Your task to perform on an android device: Open Chrome and go to the settings page Image 0: 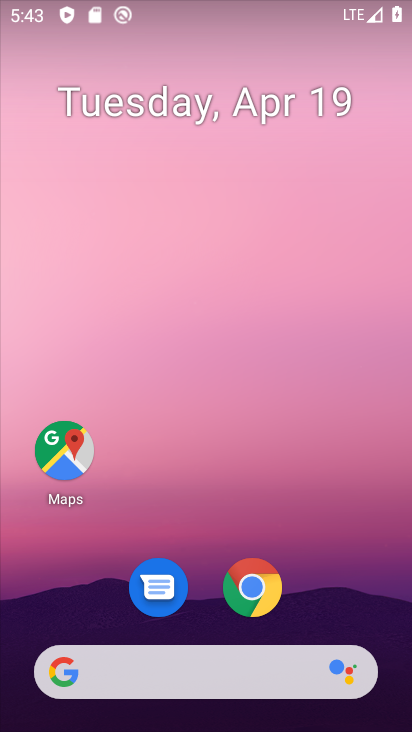
Step 0: click (245, 599)
Your task to perform on an android device: Open Chrome and go to the settings page Image 1: 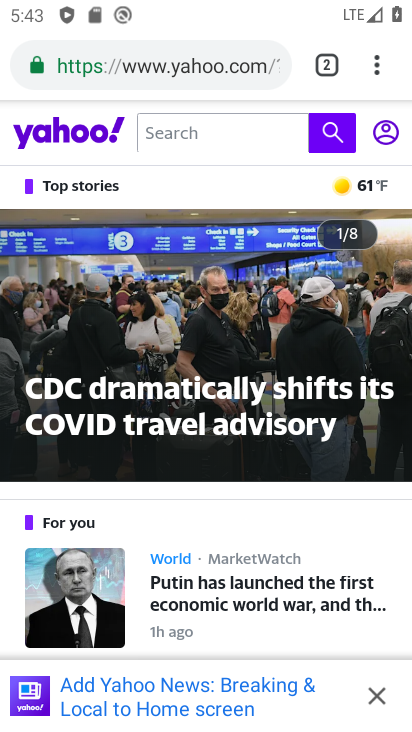
Step 1: click (378, 72)
Your task to perform on an android device: Open Chrome and go to the settings page Image 2: 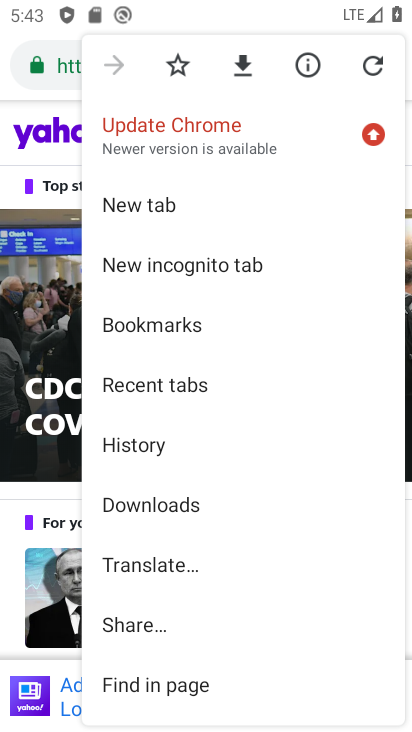
Step 2: drag from (265, 547) to (280, 190)
Your task to perform on an android device: Open Chrome and go to the settings page Image 3: 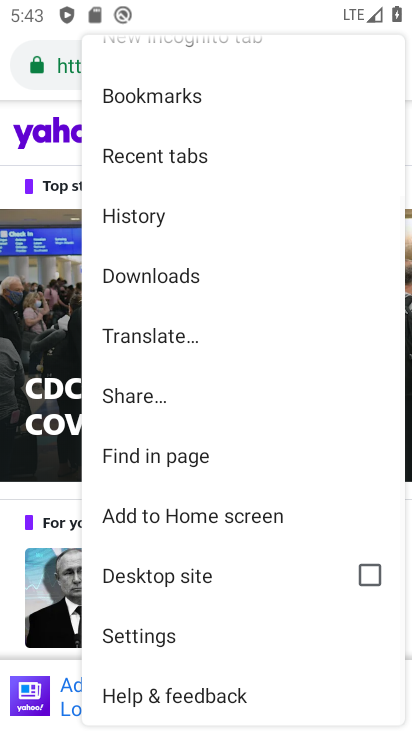
Step 3: click (158, 645)
Your task to perform on an android device: Open Chrome and go to the settings page Image 4: 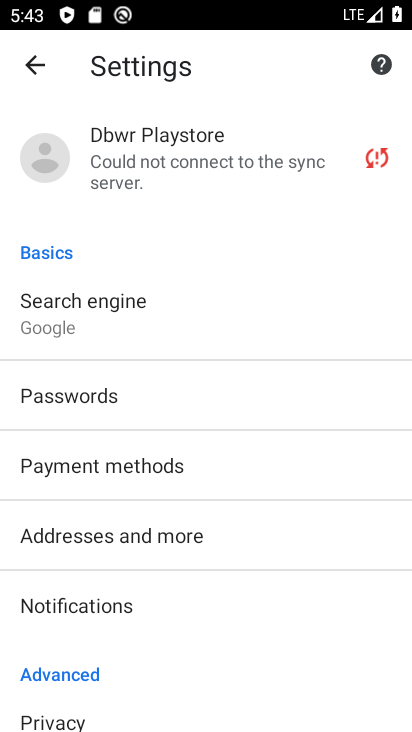
Step 4: task complete